Your task to perform on an android device: Search for pizza restaurants on Maps Image 0: 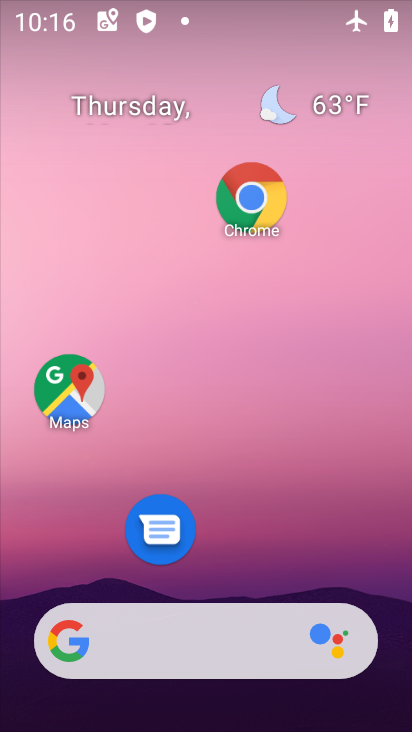
Step 0: drag from (262, 678) to (260, 115)
Your task to perform on an android device: Search for pizza restaurants on Maps Image 1: 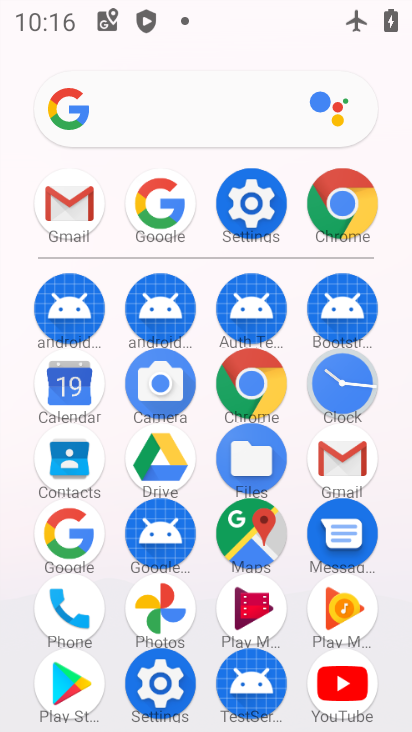
Step 1: click (269, 545)
Your task to perform on an android device: Search for pizza restaurants on Maps Image 2: 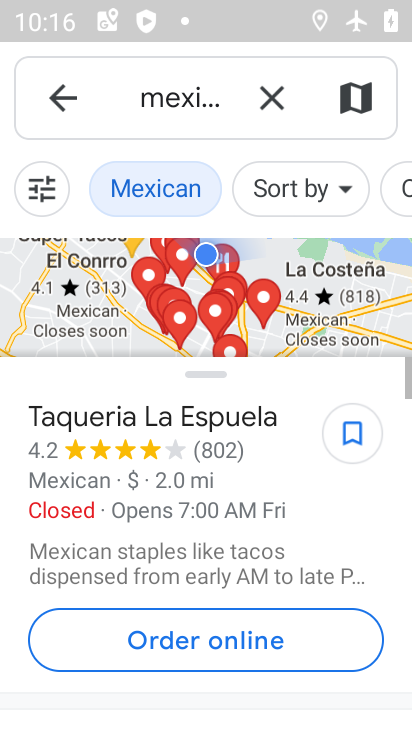
Step 2: click (272, 84)
Your task to perform on an android device: Search for pizza restaurants on Maps Image 3: 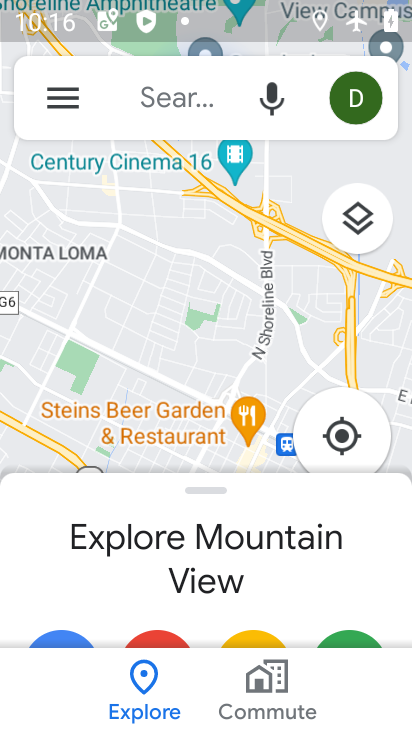
Step 3: click (208, 101)
Your task to perform on an android device: Search for pizza restaurants on Maps Image 4: 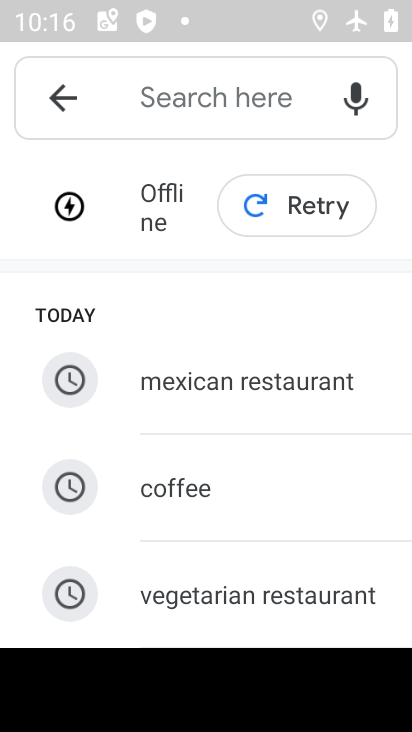
Step 4: type "pizza"
Your task to perform on an android device: Search for pizza restaurants on Maps Image 5: 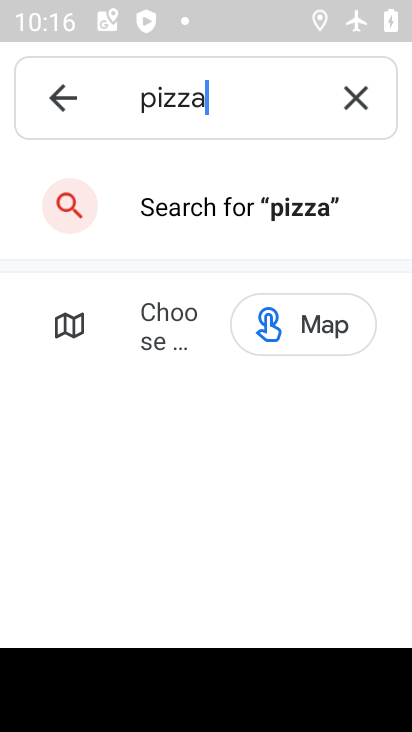
Step 5: task complete